Your task to perform on an android device: open chrome and create a bookmark for the current page Image 0: 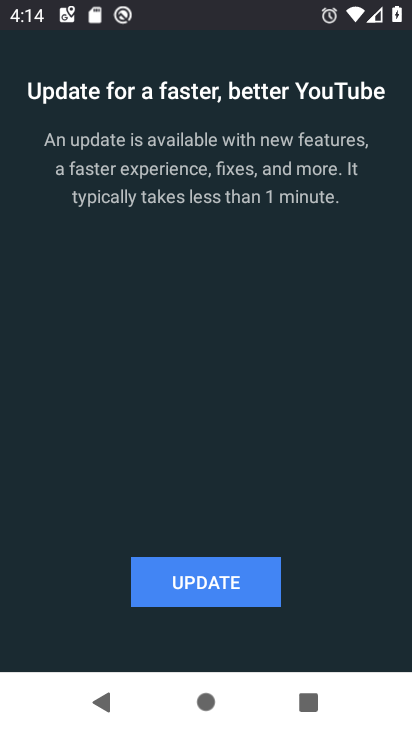
Step 0: press back button
Your task to perform on an android device: open chrome and create a bookmark for the current page Image 1: 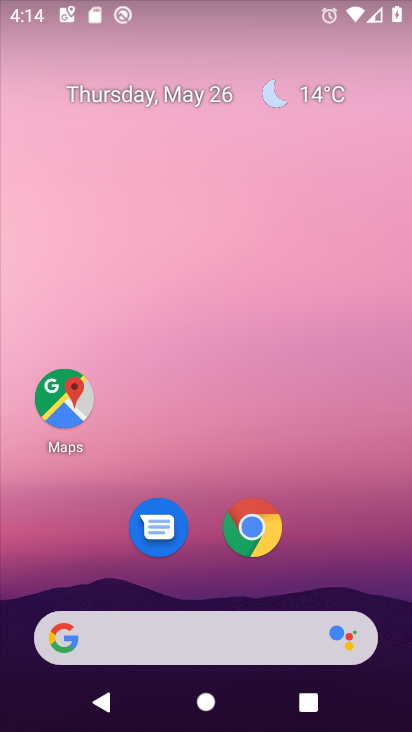
Step 1: drag from (383, 591) to (280, 166)
Your task to perform on an android device: open chrome and create a bookmark for the current page Image 2: 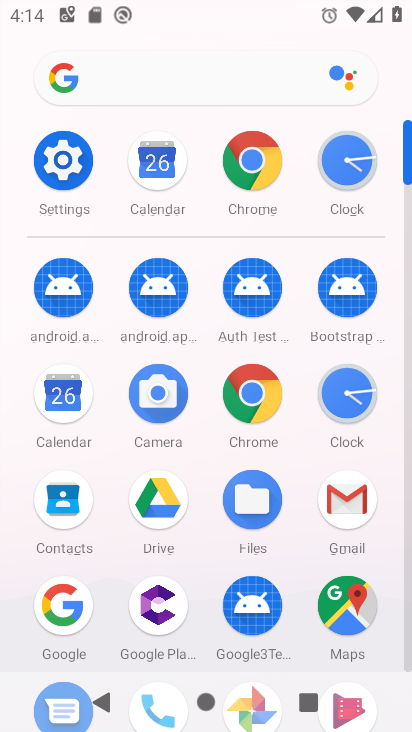
Step 2: click (263, 163)
Your task to perform on an android device: open chrome and create a bookmark for the current page Image 3: 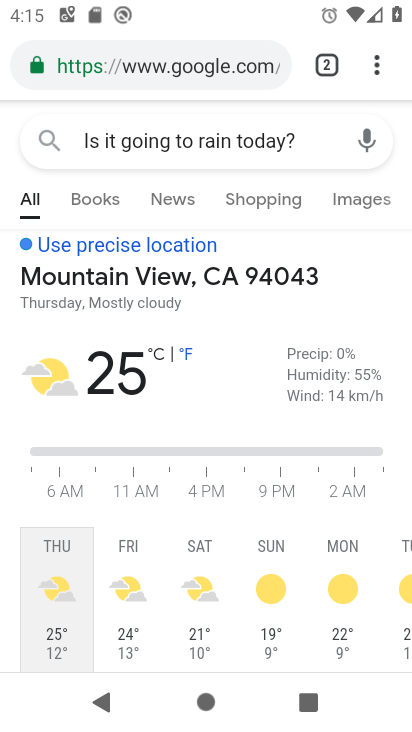
Step 3: click (380, 79)
Your task to perform on an android device: open chrome and create a bookmark for the current page Image 4: 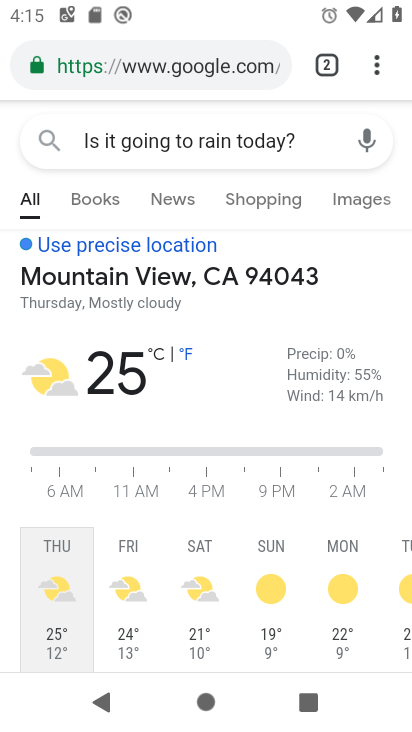
Step 4: click (388, 71)
Your task to perform on an android device: open chrome and create a bookmark for the current page Image 5: 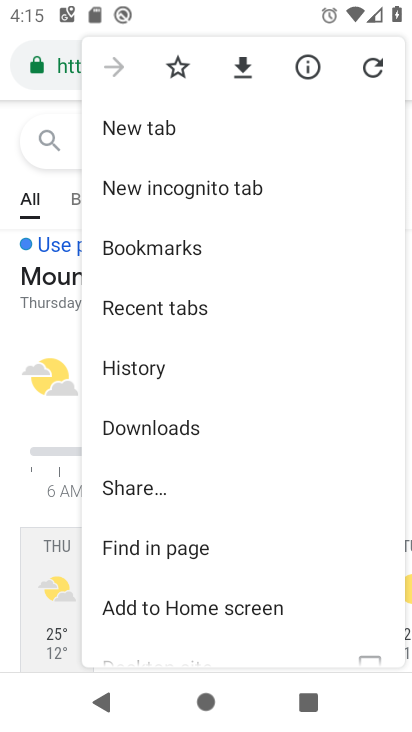
Step 5: click (176, 66)
Your task to perform on an android device: open chrome and create a bookmark for the current page Image 6: 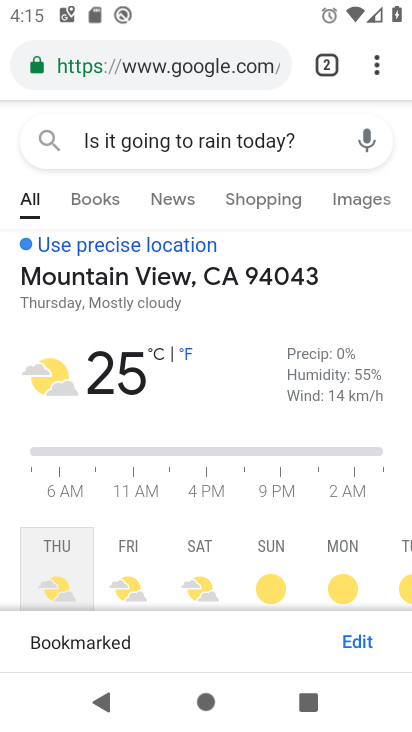
Step 6: task complete